Your task to perform on an android device: delete browsing data in the chrome app Image 0: 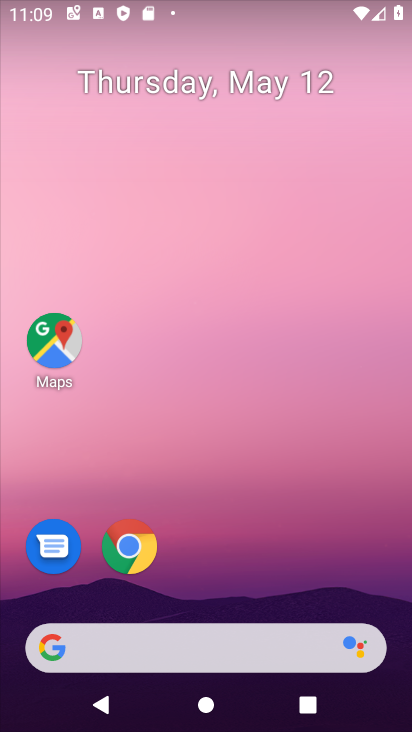
Step 0: drag from (267, 653) to (169, 242)
Your task to perform on an android device: delete browsing data in the chrome app Image 1: 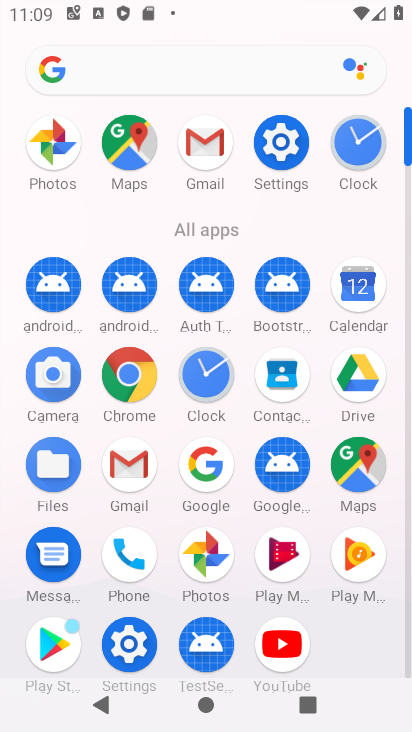
Step 1: click (138, 356)
Your task to perform on an android device: delete browsing data in the chrome app Image 2: 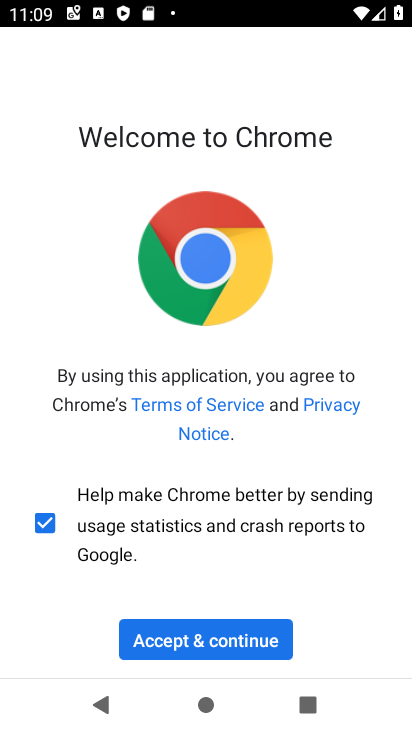
Step 2: click (178, 643)
Your task to perform on an android device: delete browsing data in the chrome app Image 3: 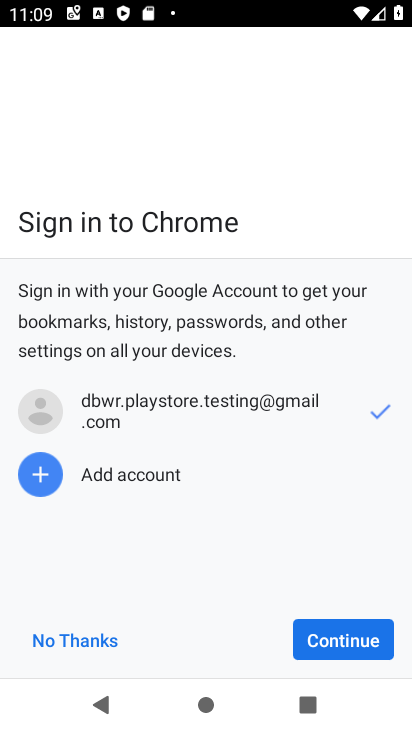
Step 3: click (325, 646)
Your task to perform on an android device: delete browsing data in the chrome app Image 4: 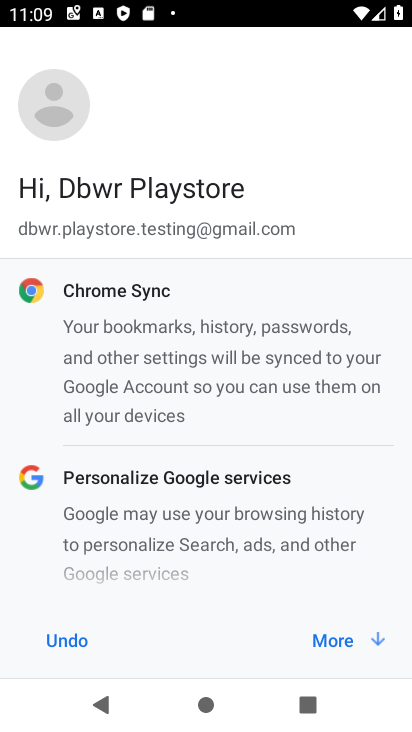
Step 4: click (372, 643)
Your task to perform on an android device: delete browsing data in the chrome app Image 5: 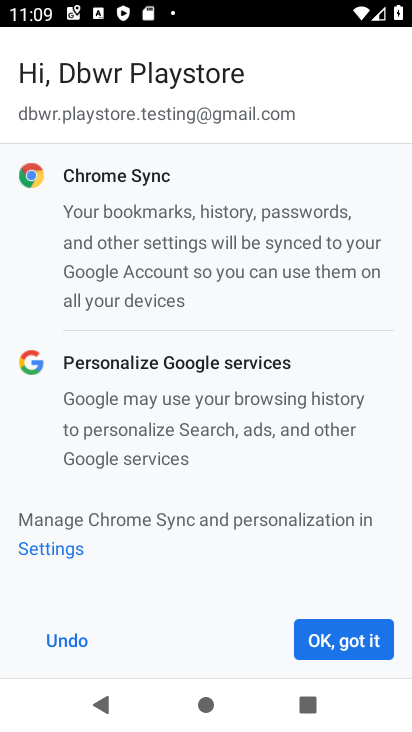
Step 5: click (374, 643)
Your task to perform on an android device: delete browsing data in the chrome app Image 6: 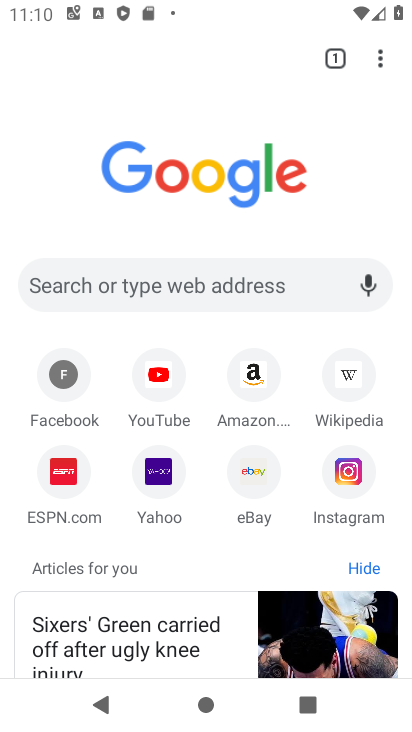
Step 6: click (382, 59)
Your task to perform on an android device: delete browsing data in the chrome app Image 7: 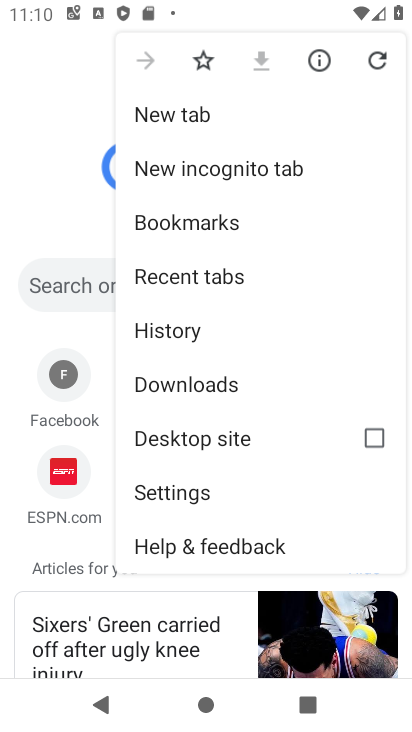
Step 7: click (197, 495)
Your task to perform on an android device: delete browsing data in the chrome app Image 8: 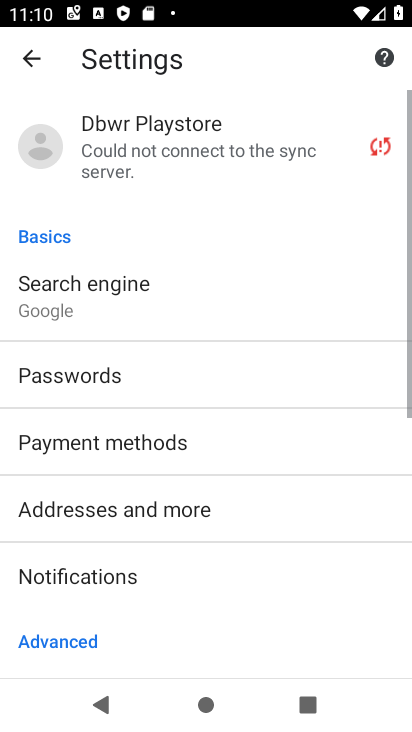
Step 8: drag from (152, 565) to (165, 269)
Your task to perform on an android device: delete browsing data in the chrome app Image 9: 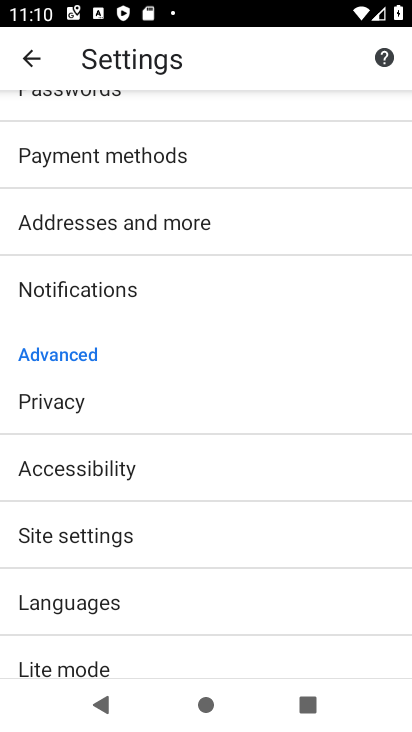
Step 9: click (102, 600)
Your task to perform on an android device: delete browsing data in the chrome app Image 10: 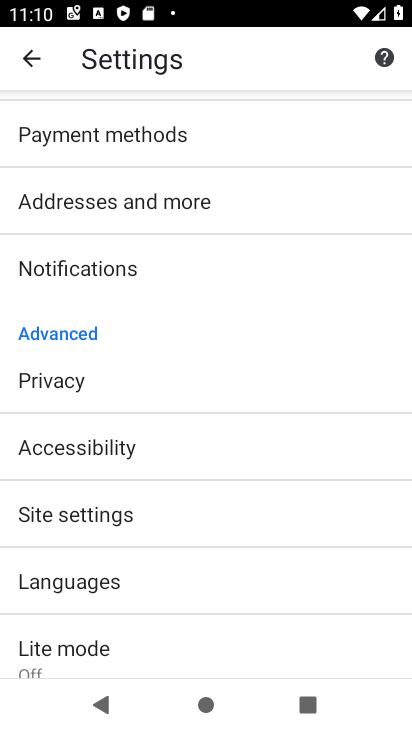
Step 10: click (45, 382)
Your task to perform on an android device: delete browsing data in the chrome app Image 11: 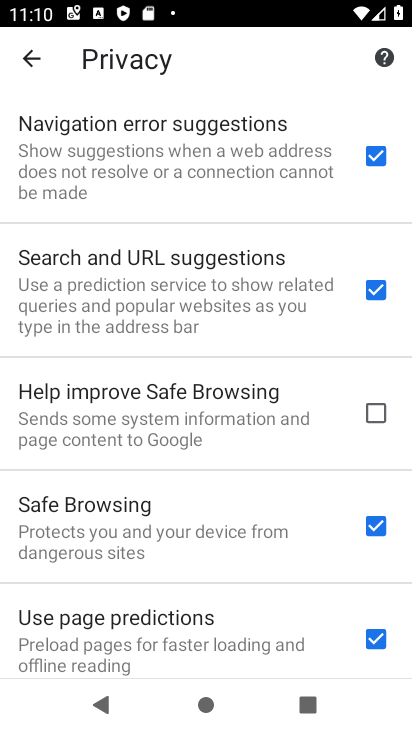
Step 11: drag from (211, 435) to (213, 211)
Your task to perform on an android device: delete browsing data in the chrome app Image 12: 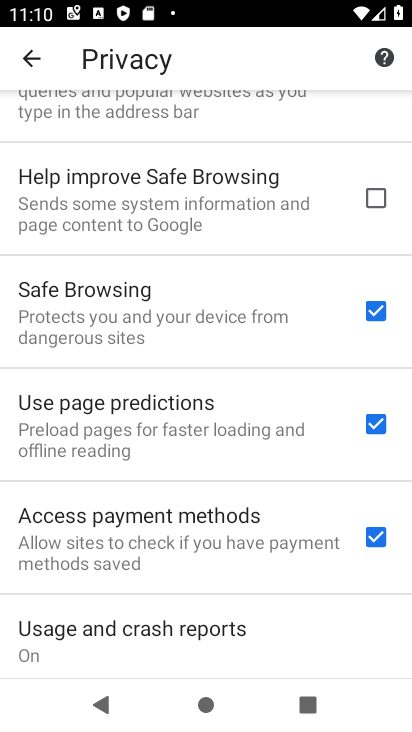
Step 12: drag from (202, 594) to (243, 315)
Your task to perform on an android device: delete browsing data in the chrome app Image 13: 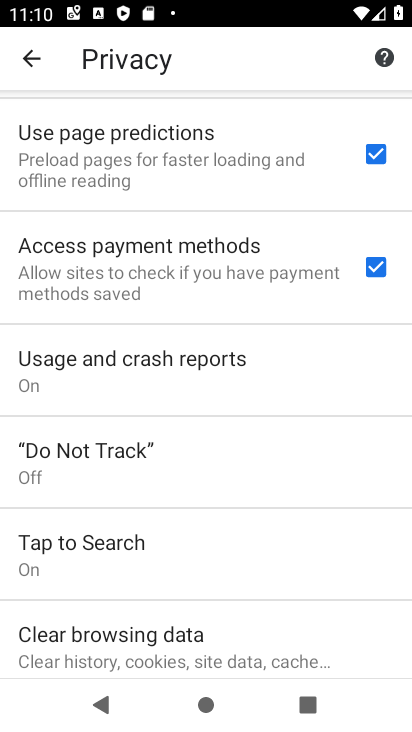
Step 13: click (186, 631)
Your task to perform on an android device: delete browsing data in the chrome app Image 14: 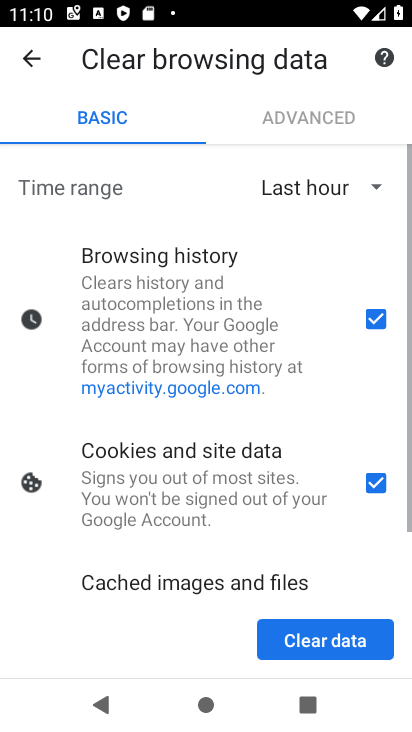
Step 14: click (312, 630)
Your task to perform on an android device: delete browsing data in the chrome app Image 15: 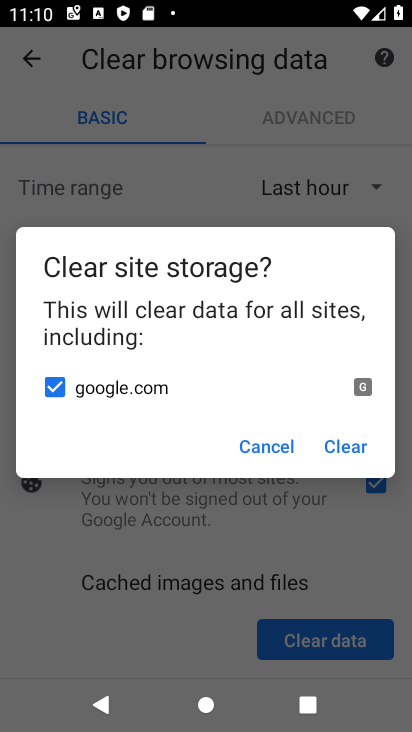
Step 15: task complete